Your task to perform on an android device: Open ESPN.com Image 0: 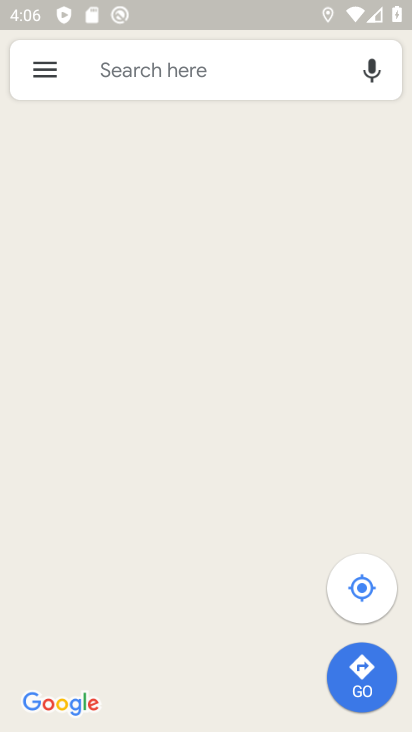
Step 0: press home button
Your task to perform on an android device: Open ESPN.com Image 1: 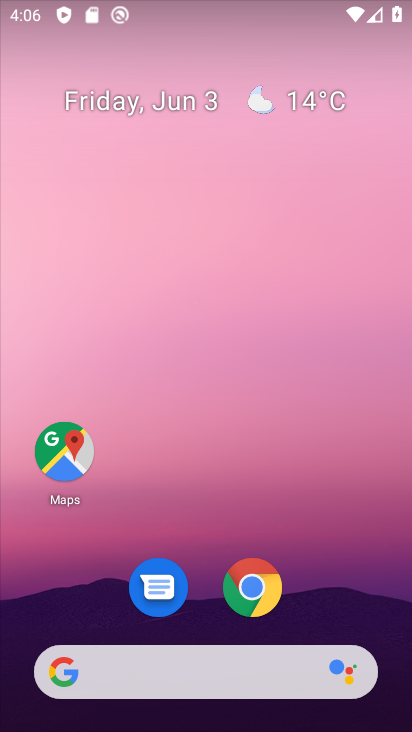
Step 1: drag from (172, 645) to (172, 302)
Your task to perform on an android device: Open ESPN.com Image 2: 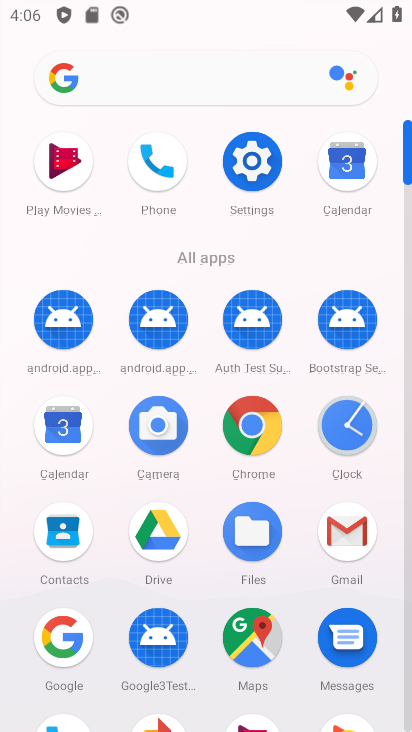
Step 2: click (256, 420)
Your task to perform on an android device: Open ESPN.com Image 3: 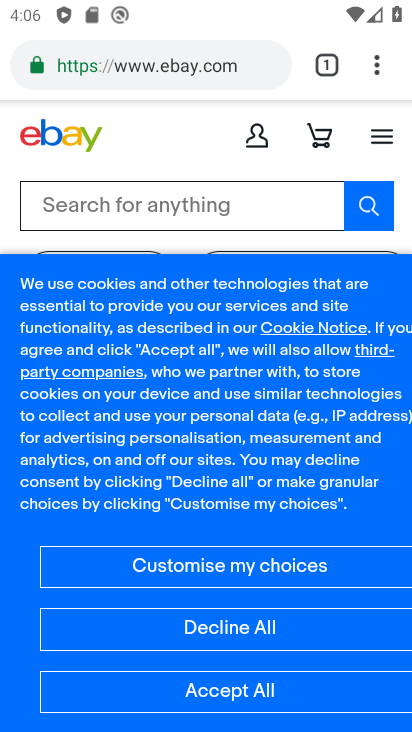
Step 3: click (327, 62)
Your task to perform on an android device: Open ESPN.com Image 4: 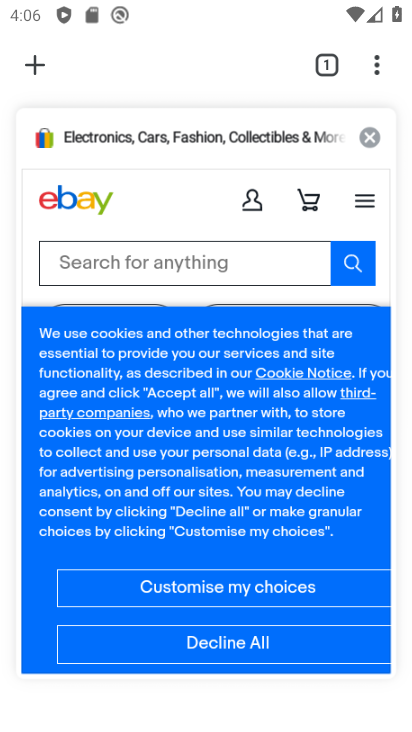
Step 4: click (375, 130)
Your task to perform on an android device: Open ESPN.com Image 5: 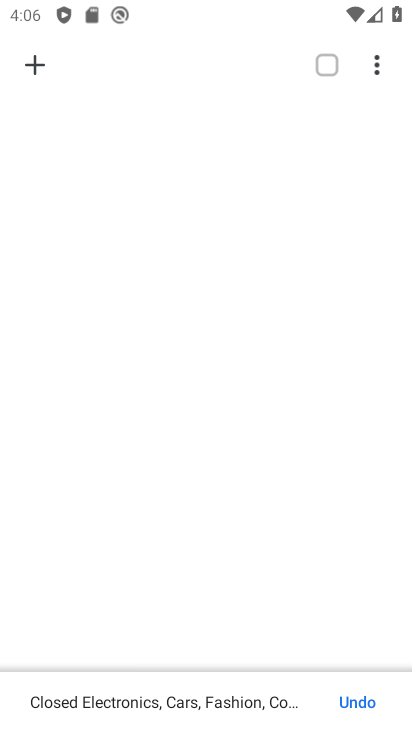
Step 5: click (39, 65)
Your task to perform on an android device: Open ESPN.com Image 6: 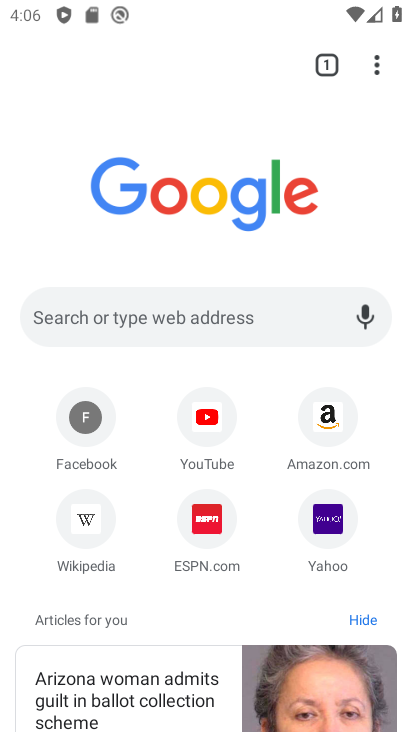
Step 6: click (184, 521)
Your task to perform on an android device: Open ESPN.com Image 7: 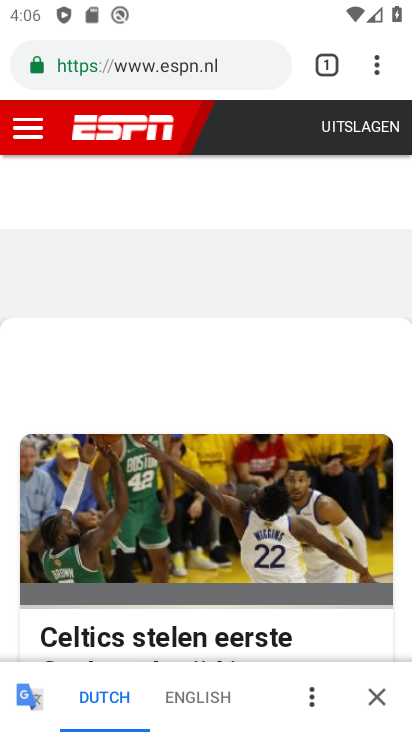
Step 7: task complete